Your task to perform on an android device: Open notification settings Image 0: 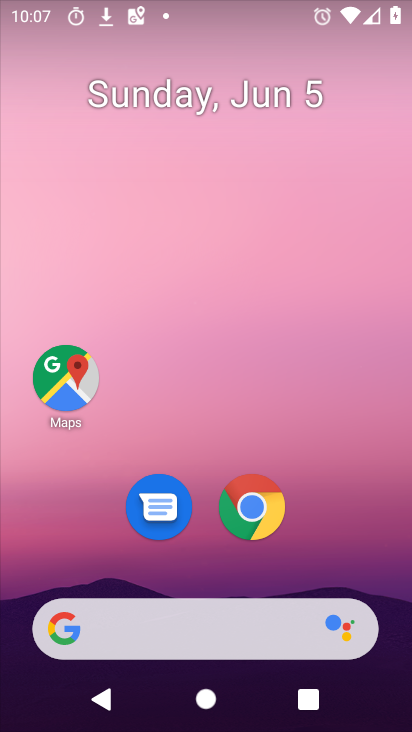
Step 0: drag from (275, 649) to (316, 128)
Your task to perform on an android device: Open notification settings Image 1: 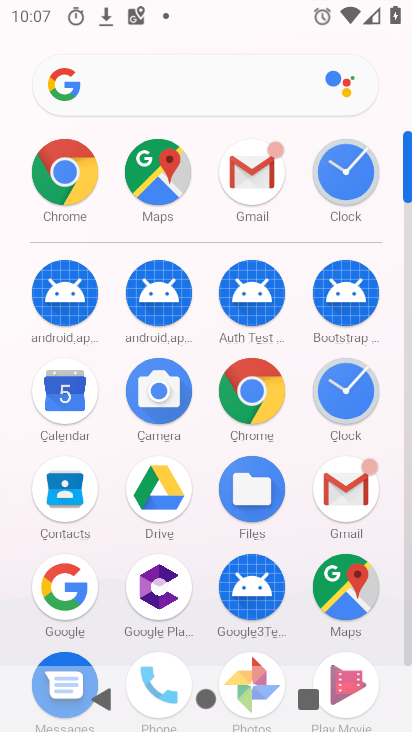
Step 1: drag from (100, 523) to (125, 368)
Your task to perform on an android device: Open notification settings Image 2: 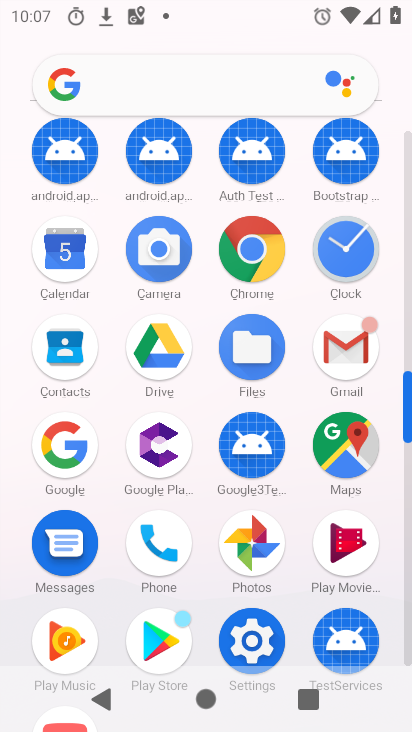
Step 2: click (256, 627)
Your task to perform on an android device: Open notification settings Image 3: 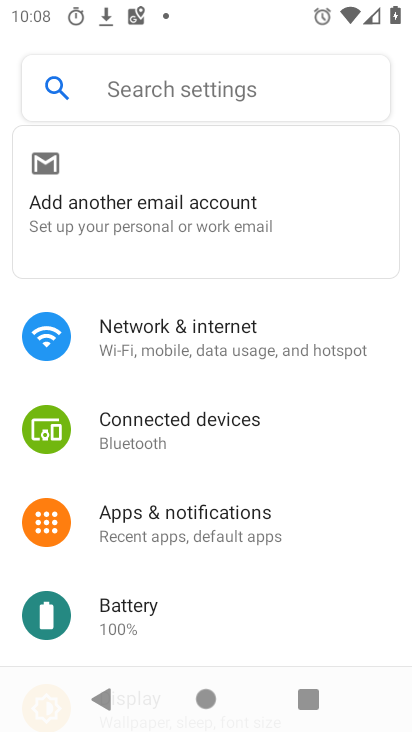
Step 3: click (135, 93)
Your task to perform on an android device: Open notification settings Image 4: 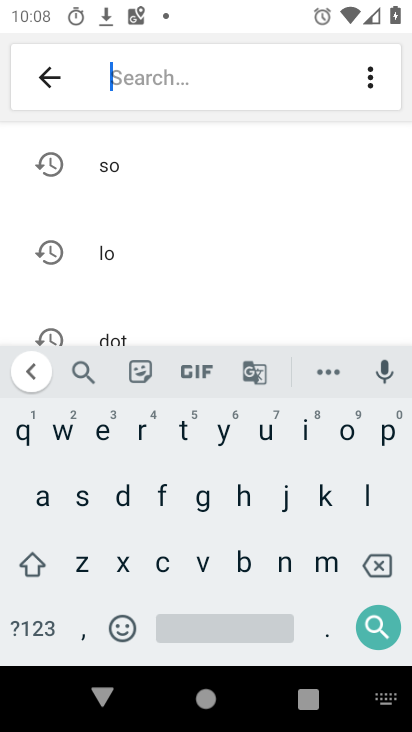
Step 4: click (271, 555)
Your task to perform on an android device: Open notification settings Image 5: 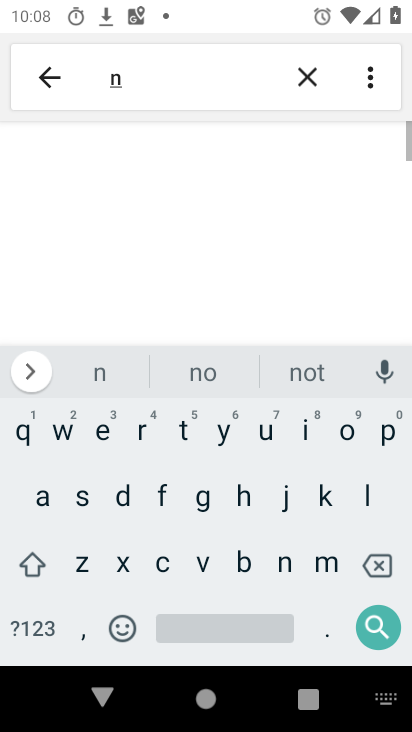
Step 5: click (344, 431)
Your task to perform on an android device: Open notification settings Image 6: 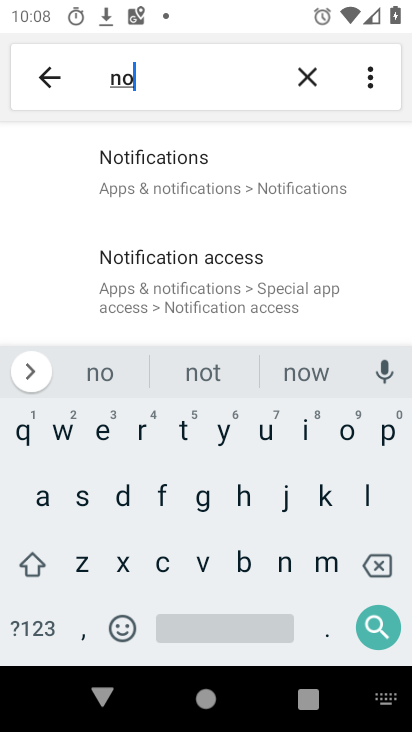
Step 6: click (137, 150)
Your task to perform on an android device: Open notification settings Image 7: 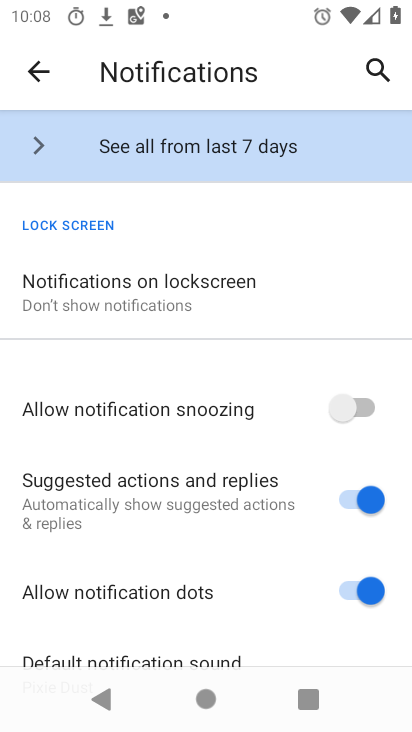
Step 7: click (120, 301)
Your task to perform on an android device: Open notification settings Image 8: 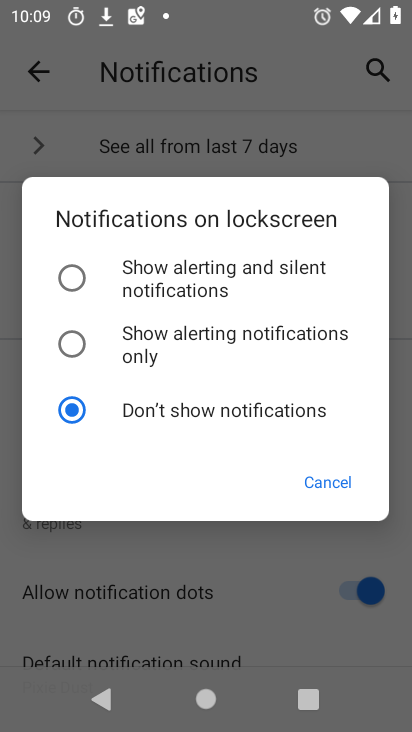
Step 8: click (236, 268)
Your task to perform on an android device: Open notification settings Image 9: 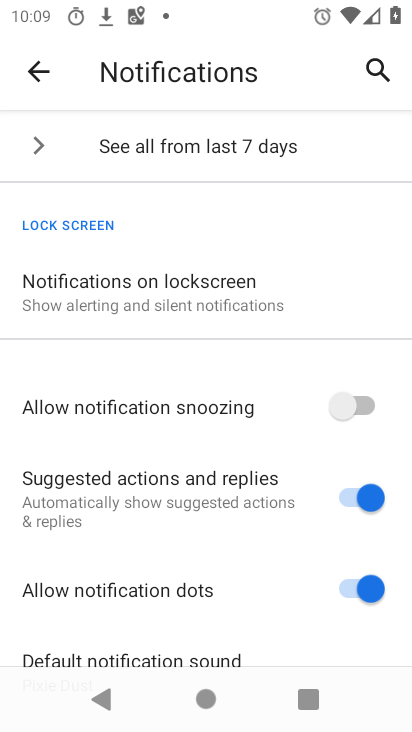
Step 9: task complete